Your task to perform on an android device: Go to wifi settings Image 0: 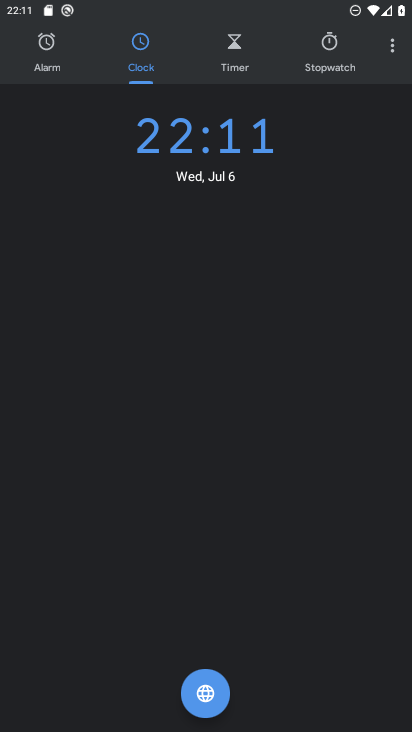
Step 0: press home button
Your task to perform on an android device: Go to wifi settings Image 1: 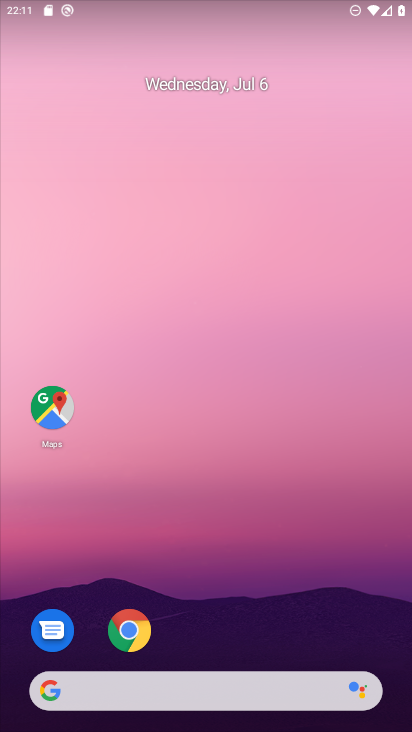
Step 1: drag from (261, 10) to (273, 625)
Your task to perform on an android device: Go to wifi settings Image 2: 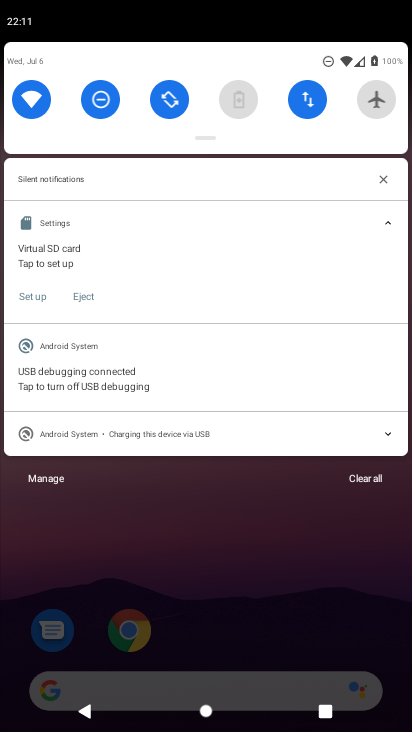
Step 2: click (30, 100)
Your task to perform on an android device: Go to wifi settings Image 3: 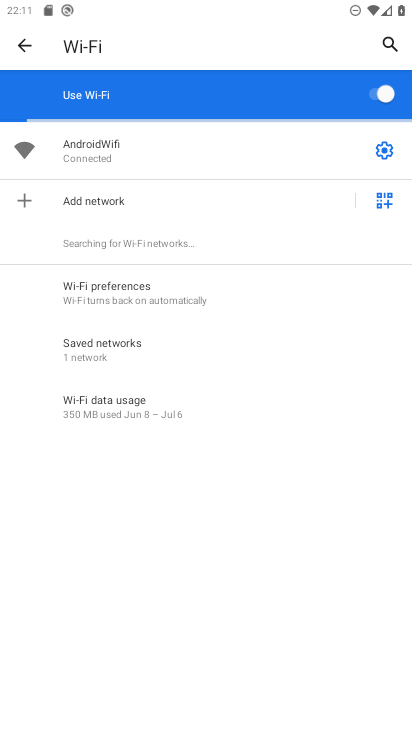
Step 3: task complete